Your task to perform on an android device: clear all cookies in the chrome app Image 0: 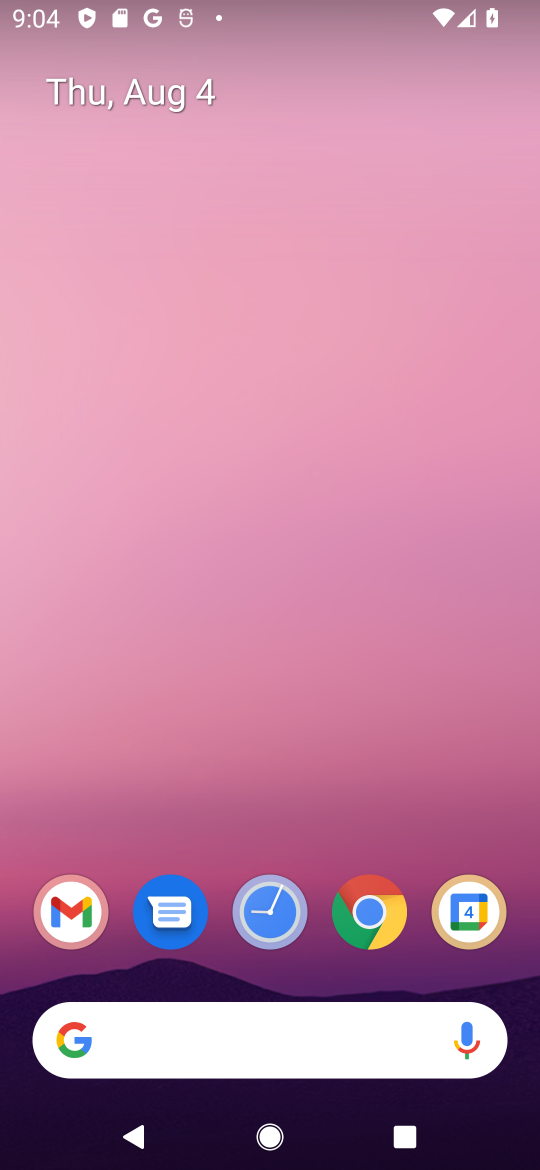
Step 0: click (380, 883)
Your task to perform on an android device: clear all cookies in the chrome app Image 1: 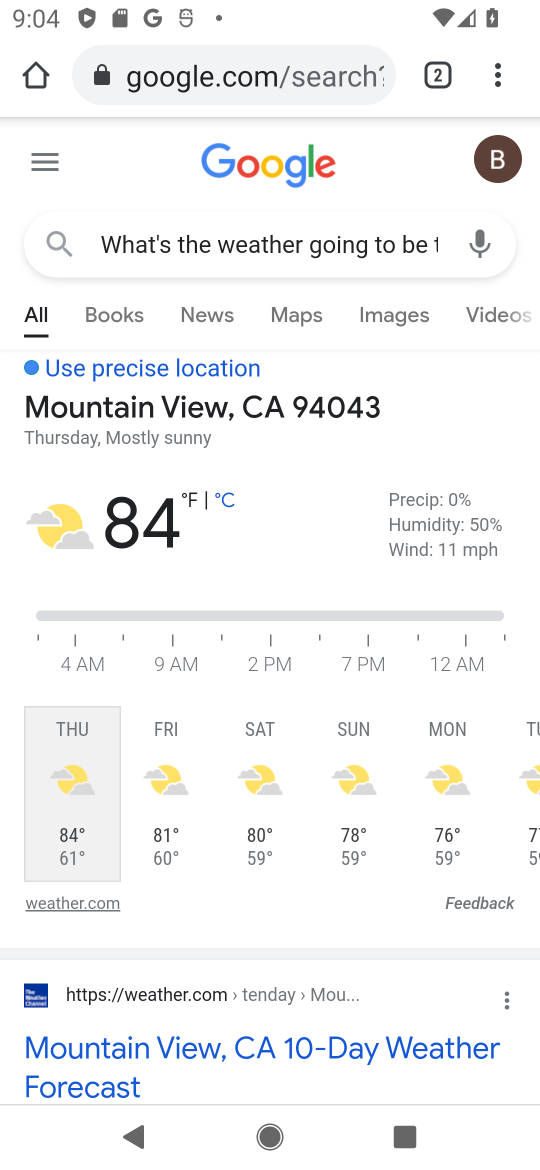
Step 1: click (507, 72)
Your task to perform on an android device: clear all cookies in the chrome app Image 2: 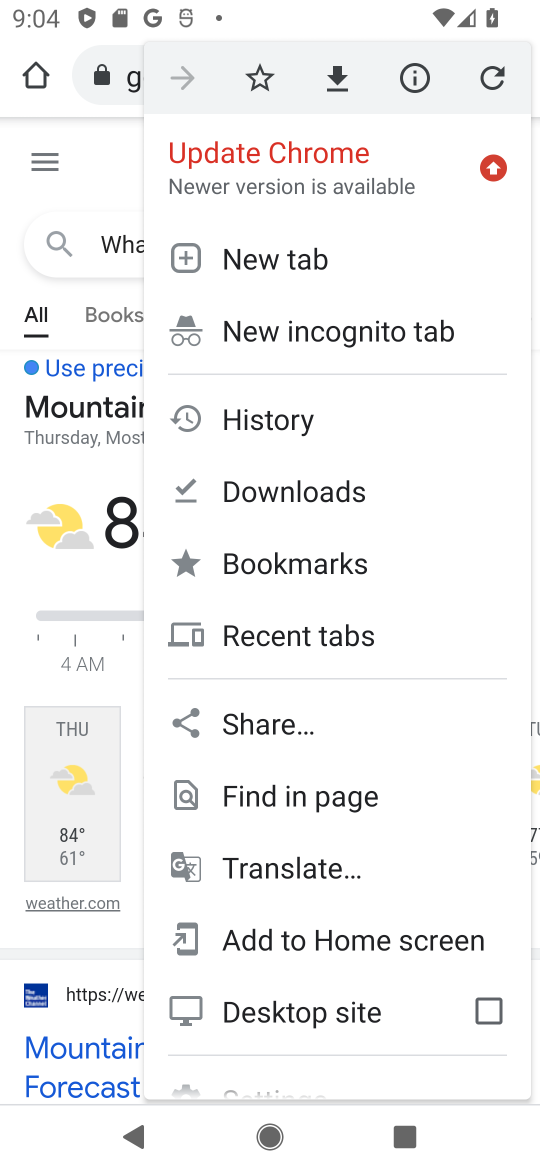
Step 2: drag from (404, 1030) to (336, 606)
Your task to perform on an android device: clear all cookies in the chrome app Image 3: 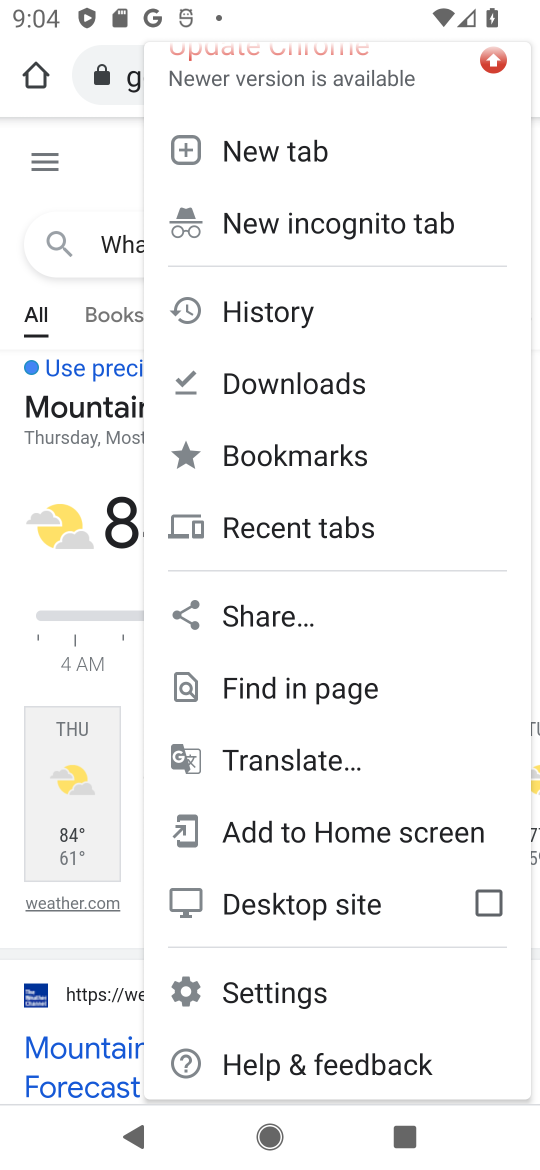
Step 3: click (280, 323)
Your task to perform on an android device: clear all cookies in the chrome app Image 4: 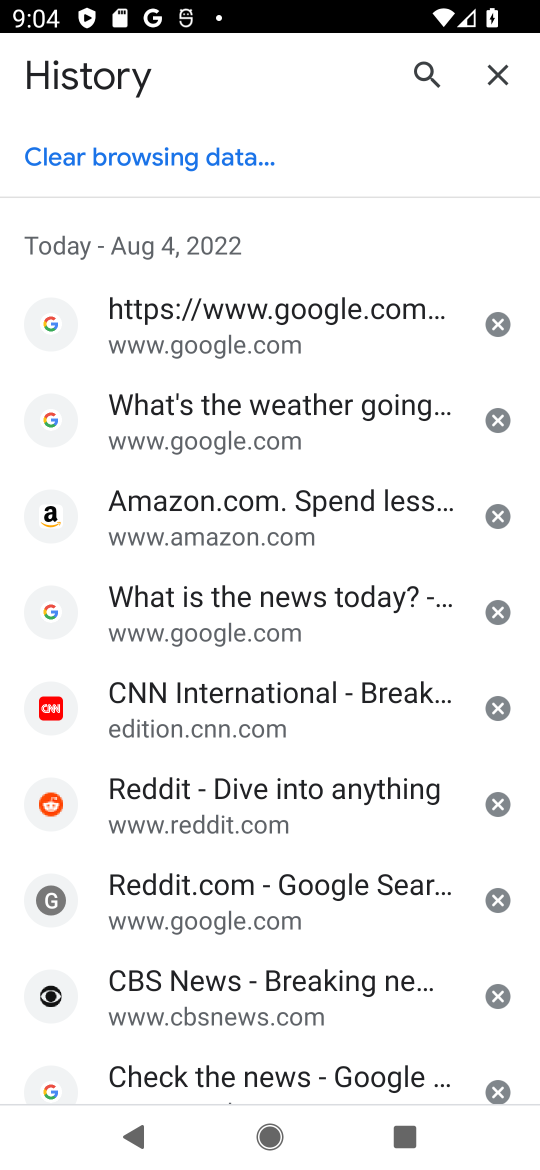
Step 4: click (188, 155)
Your task to perform on an android device: clear all cookies in the chrome app Image 5: 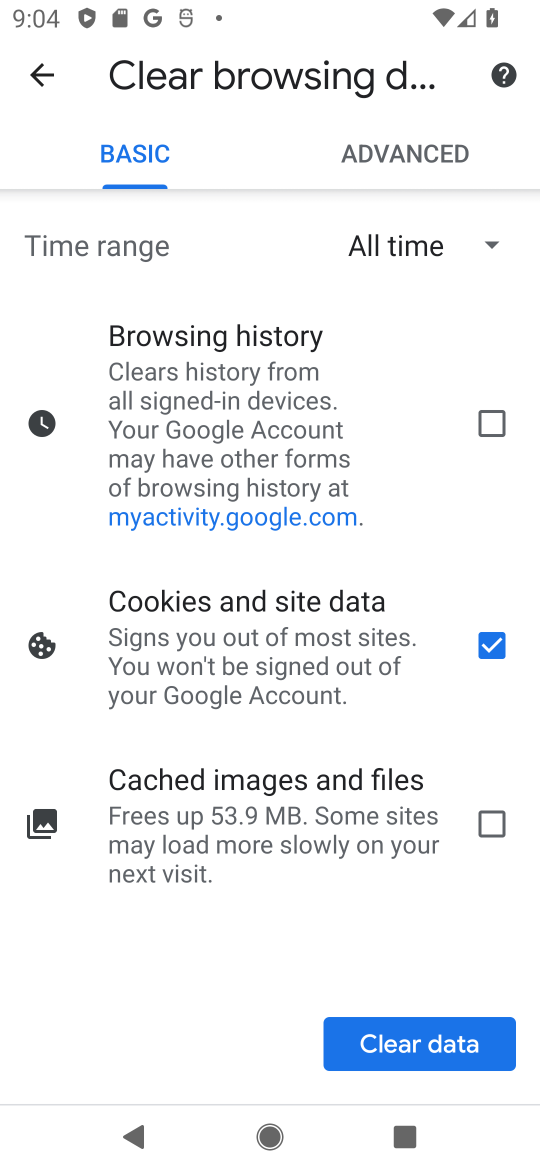
Step 5: click (472, 1034)
Your task to perform on an android device: clear all cookies in the chrome app Image 6: 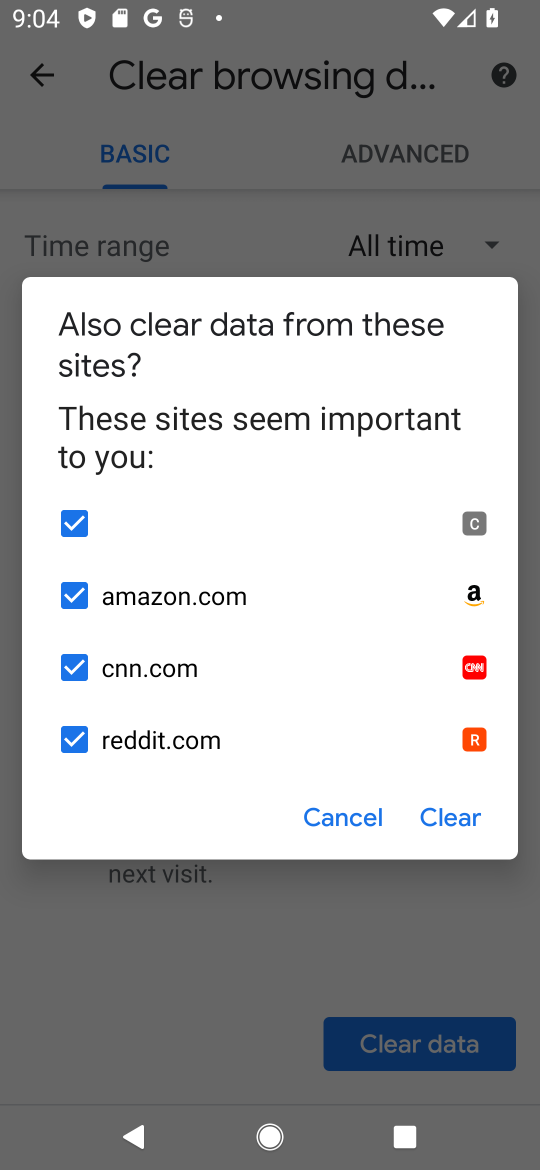
Step 6: click (440, 819)
Your task to perform on an android device: clear all cookies in the chrome app Image 7: 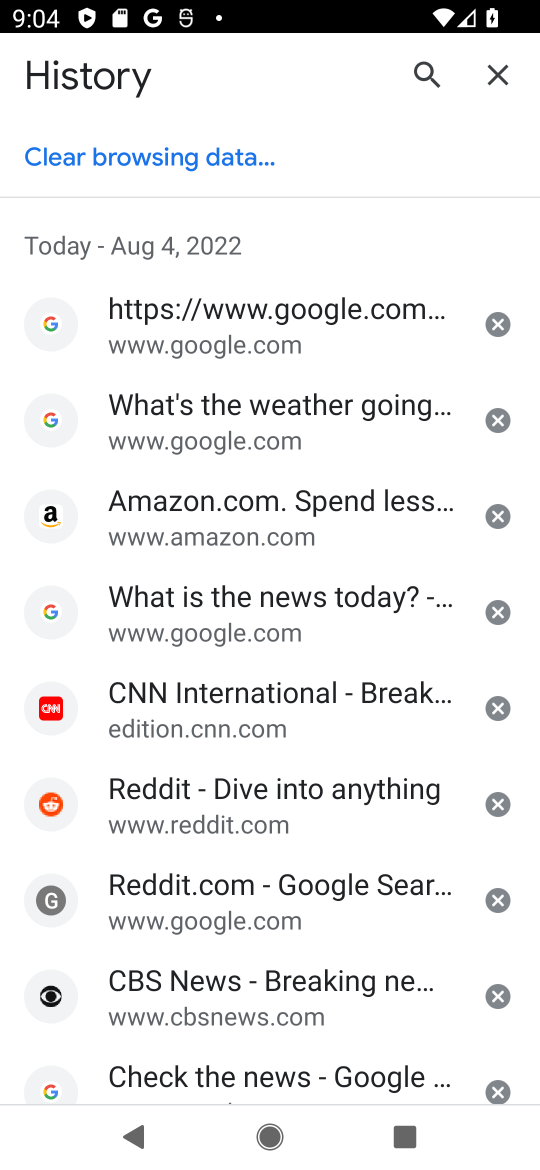
Step 7: task complete